Your task to perform on an android device: Open network settings Image 0: 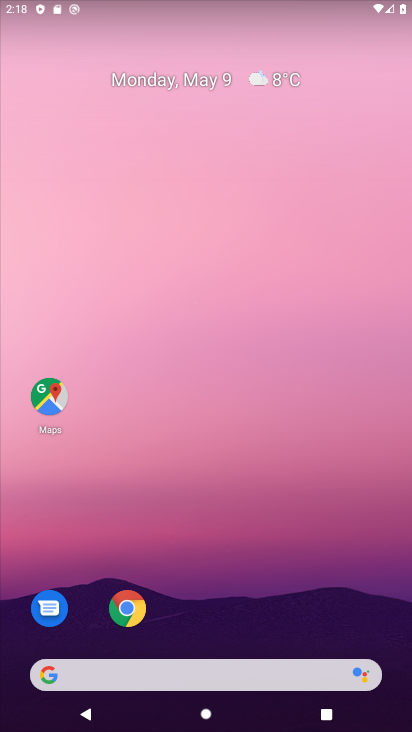
Step 0: drag from (201, 632) to (247, 360)
Your task to perform on an android device: Open network settings Image 1: 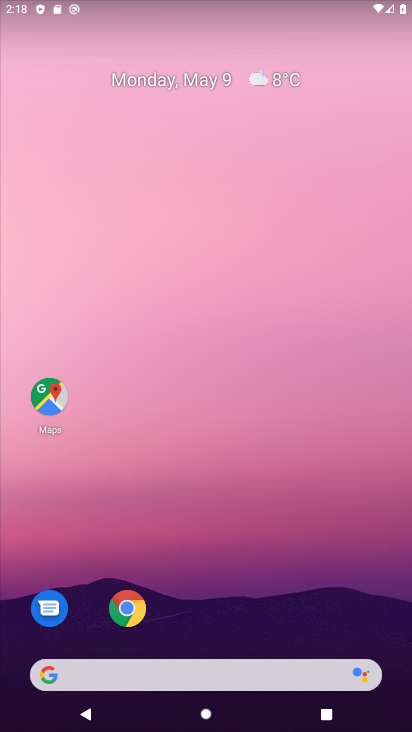
Step 1: drag from (205, 647) to (187, 310)
Your task to perform on an android device: Open network settings Image 2: 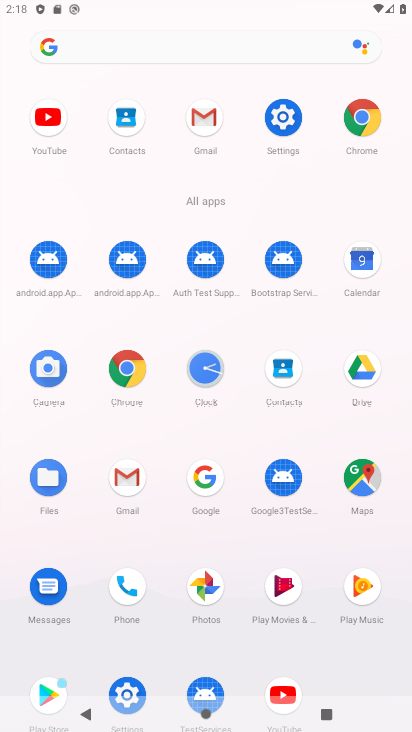
Step 2: click (288, 123)
Your task to perform on an android device: Open network settings Image 3: 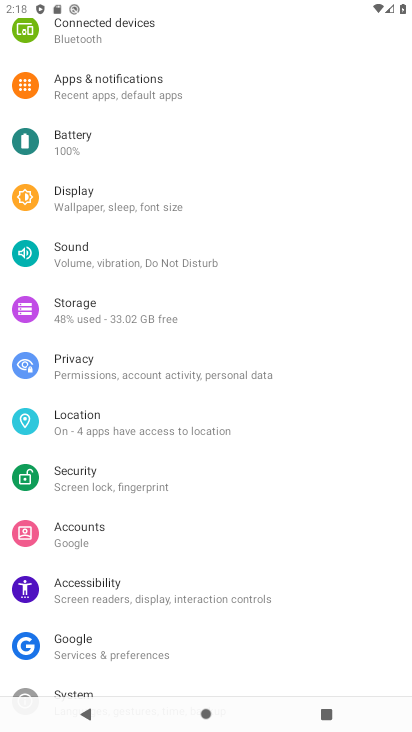
Step 3: drag from (183, 148) to (126, 530)
Your task to perform on an android device: Open network settings Image 4: 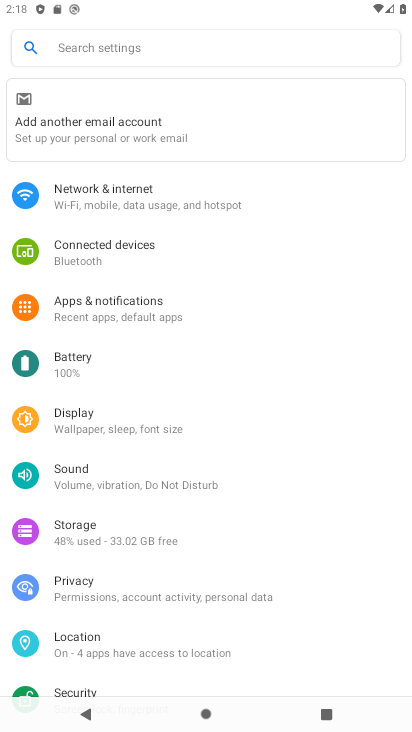
Step 4: click (144, 207)
Your task to perform on an android device: Open network settings Image 5: 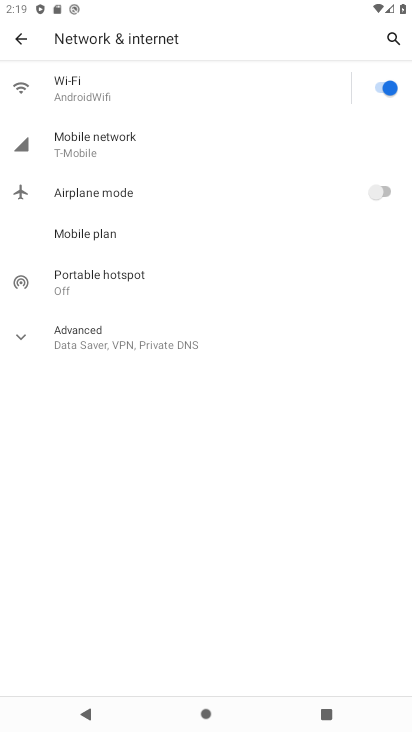
Step 5: task complete